Your task to perform on an android device: toggle javascript in the chrome app Image 0: 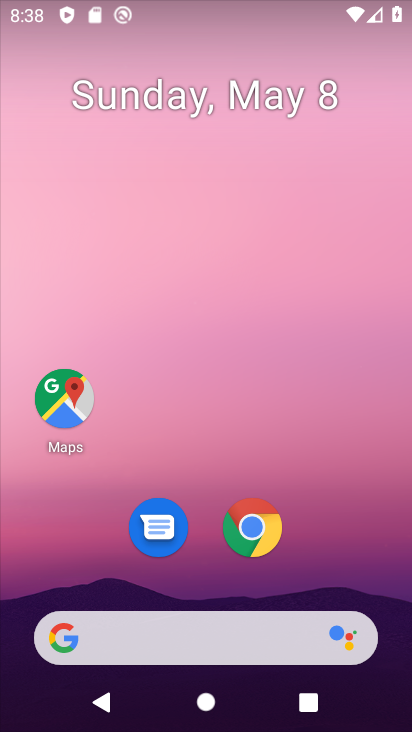
Step 0: click (250, 524)
Your task to perform on an android device: toggle javascript in the chrome app Image 1: 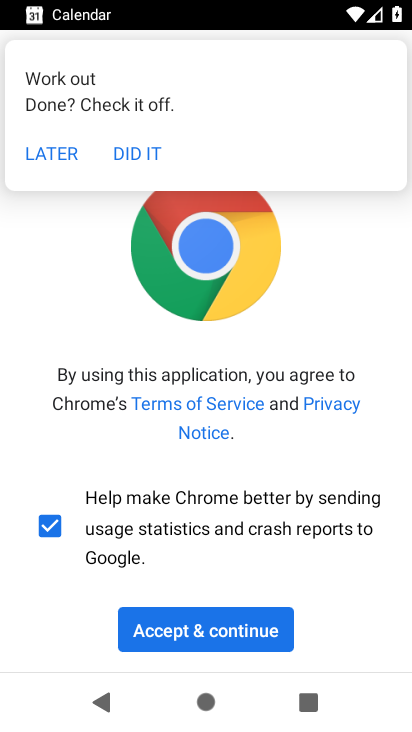
Step 1: click (173, 657)
Your task to perform on an android device: toggle javascript in the chrome app Image 2: 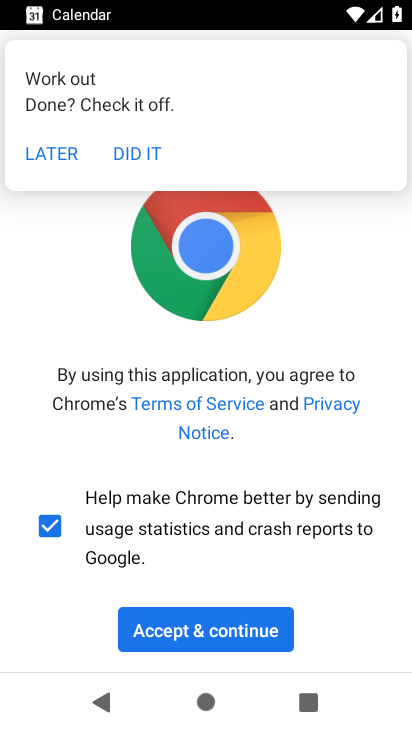
Step 2: click (170, 636)
Your task to perform on an android device: toggle javascript in the chrome app Image 3: 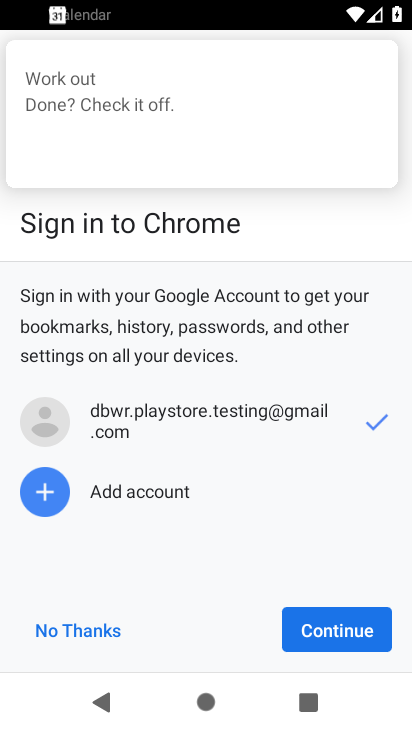
Step 3: click (336, 639)
Your task to perform on an android device: toggle javascript in the chrome app Image 4: 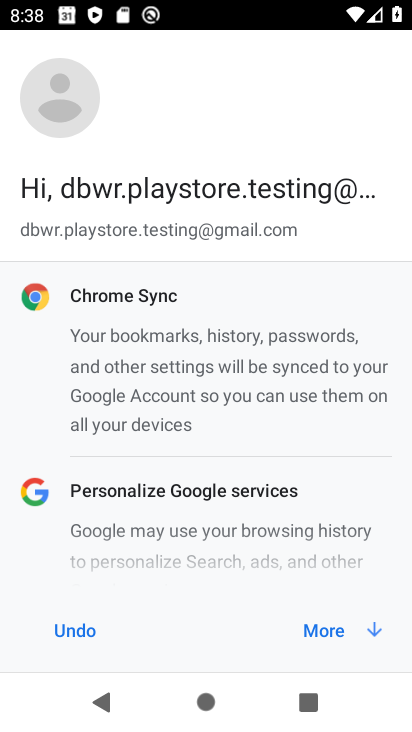
Step 4: click (315, 628)
Your task to perform on an android device: toggle javascript in the chrome app Image 5: 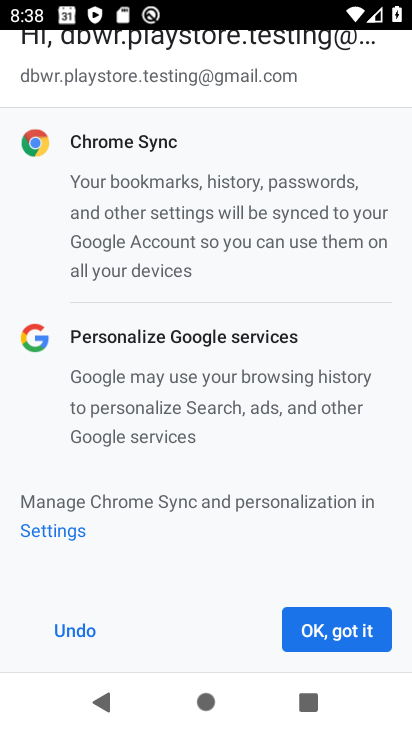
Step 5: click (320, 629)
Your task to perform on an android device: toggle javascript in the chrome app Image 6: 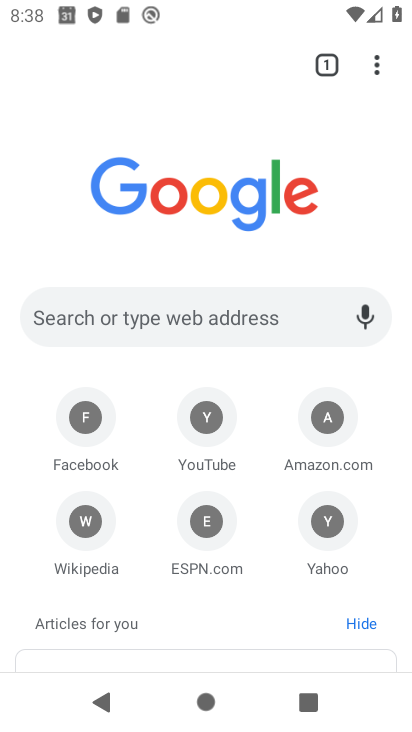
Step 6: click (364, 63)
Your task to perform on an android device: toggle javascript in the chrome app Image 7: 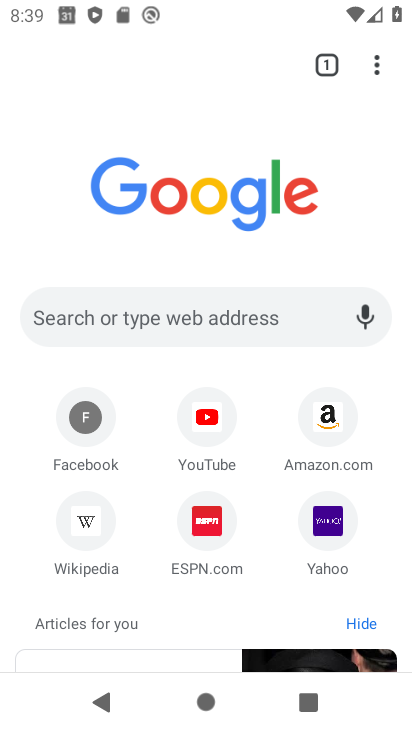
Step 7: click (364, 61)
Your task to perform on an android device: toggle javascript in the chrome app Image 8: 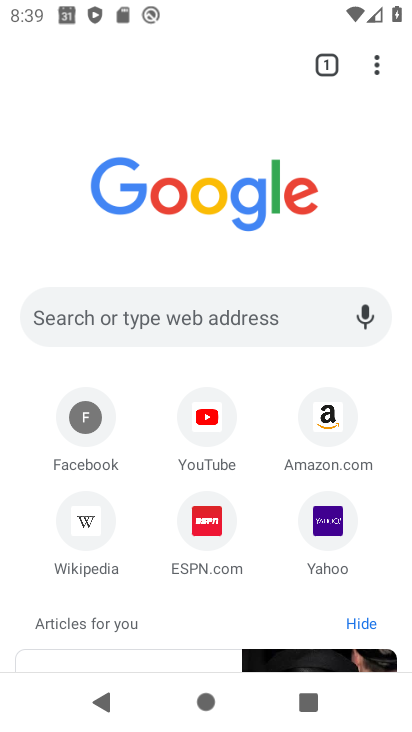
Step 8: click (370, 63)
Your task to perform on an android device: toggle javascript in the chrome app Image 9: 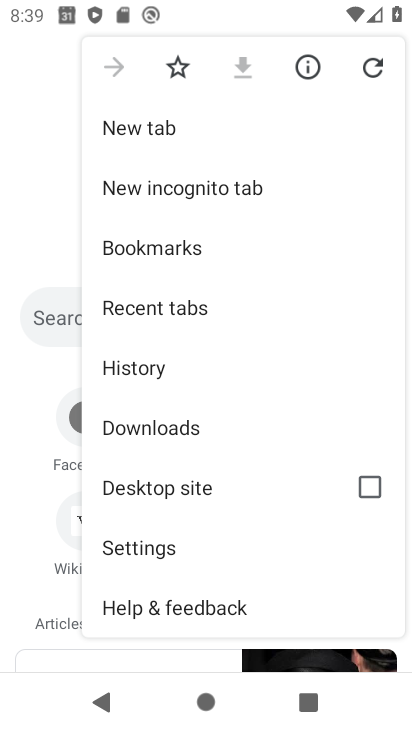
Step 9: click (166, 549)
Your task to perform on an android device: toggle javascript in the chrome app Image 10: 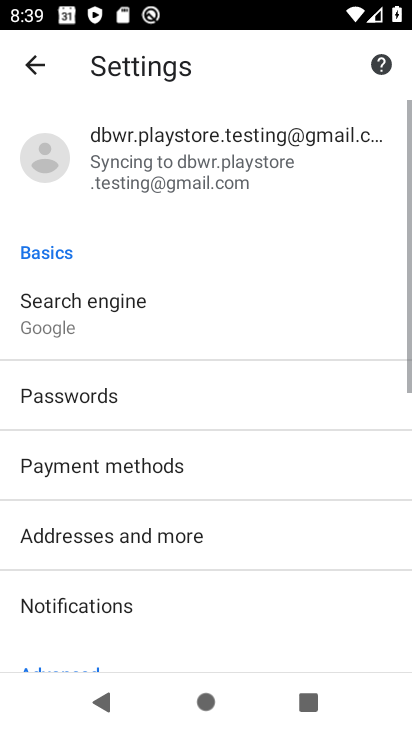
Step 10: drag from (177, 469) to (336, 37)
Your task to perform on an android device: toggle javascript in the chrome app Image 11: 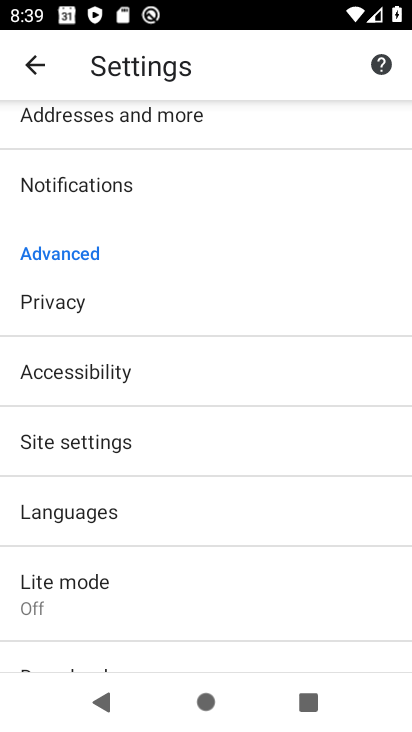
Step 11: click (99, 442)
Your task to perform on an android device: toggle javascript in the chrome app Image 12: 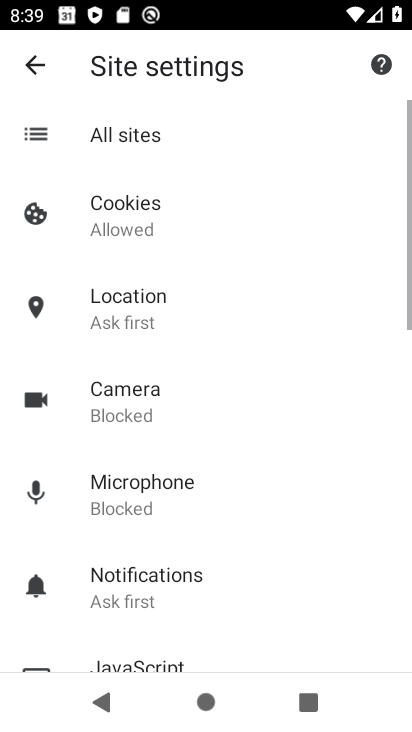
Step 12: drag from (164, 571) to (203, 152)
Your task to perform on an android device: toggle javascript in the chrome app Image 13: 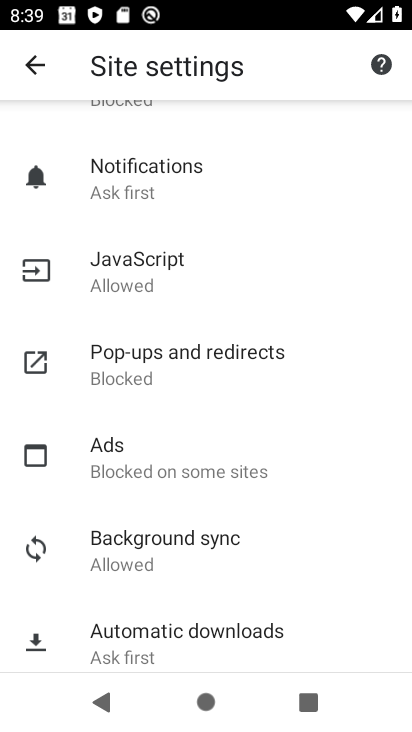
Step 13: click (144, 270)
Your task to perform on an android device: toggle javascript in the chrome app Image 14: 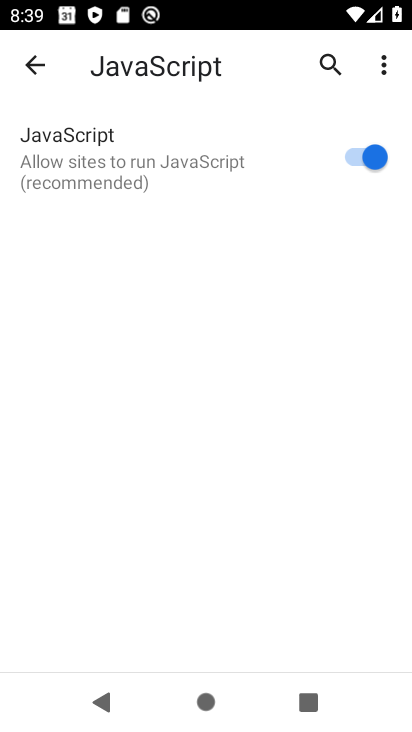
Step 14: click (367, 148)
Your task to perform on an android device: toggle javascript in the chrome app Image 15: 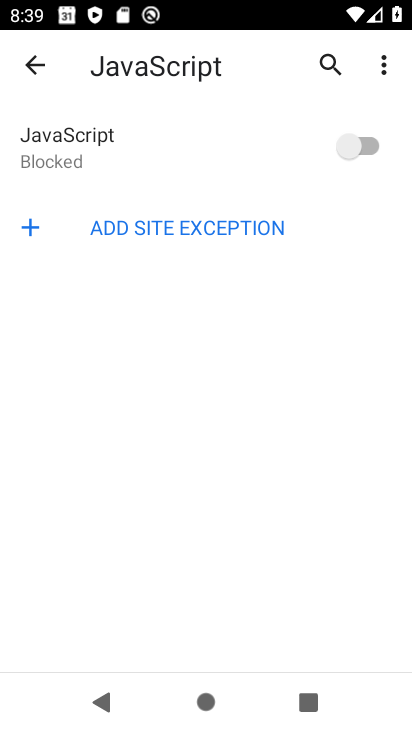
Step 15: task complete